Your task to perform on an android device: toggle priority inbox in the gmail app Image 0: 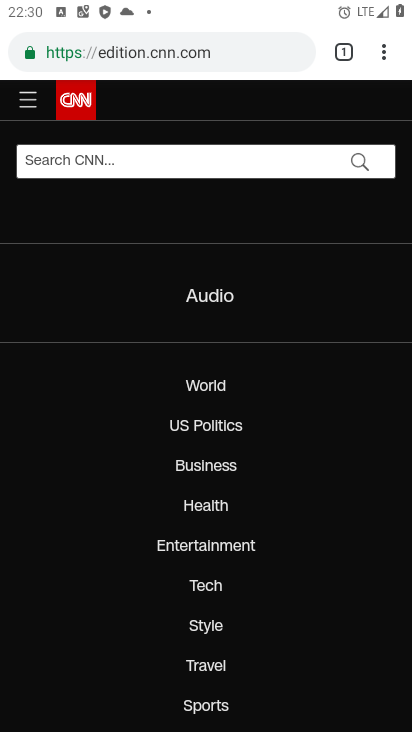
Step 0: press home button
Your task to perform on an android device: toggle priority inbox in the gmail app Image 1: 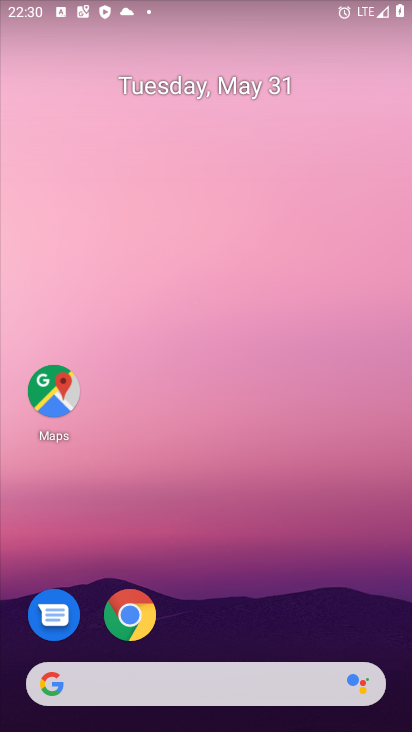
Step 1: drag from (358, 631) to (347, 104)
Your task to perform on an android device: toggle priority inbox in the gmail app Image 2: 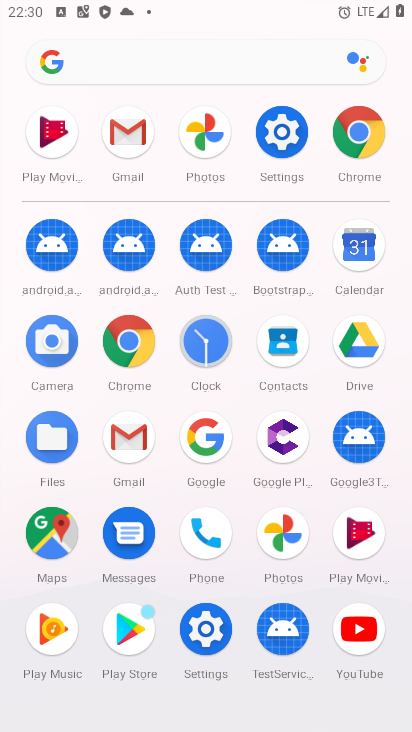
Step 2: click (130, 438)
Your task to perform on an android device: toggle priority inbox in the gmail app Image 3: 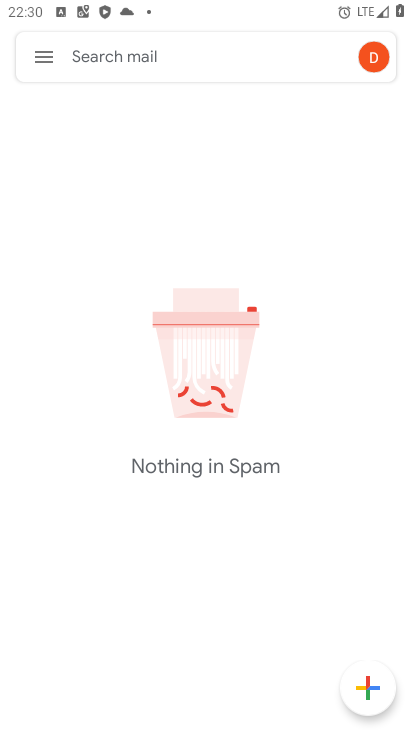
Step 3: click (38, 59)
Your task to perform on an android device: toggle priority inbox in the gmail app Image 4: 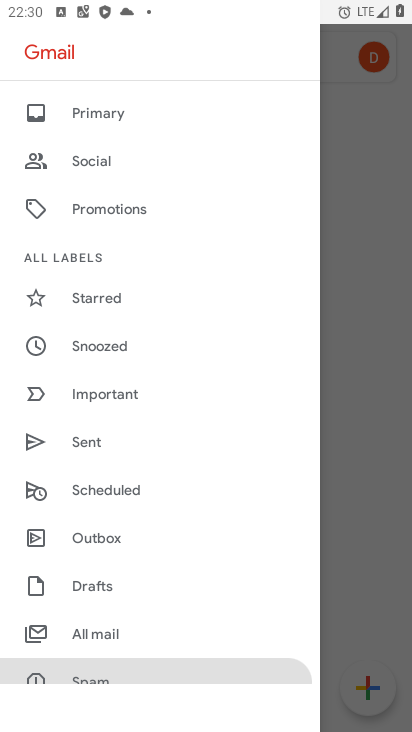
Step 4: drag from (179, 588) to (180, 244)
Your task to perform on an android device: toggle priority inbox in the gmail app Image 5: 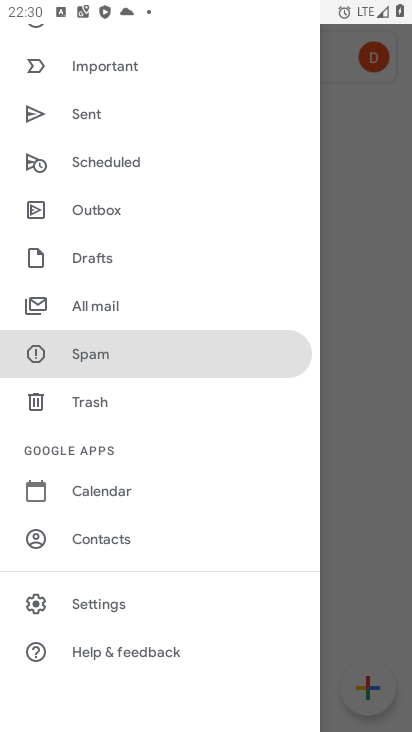
Step 5: click (107, 597)
Your task to perform on an android device: toggle priority inbox in the gmail app Image 6: 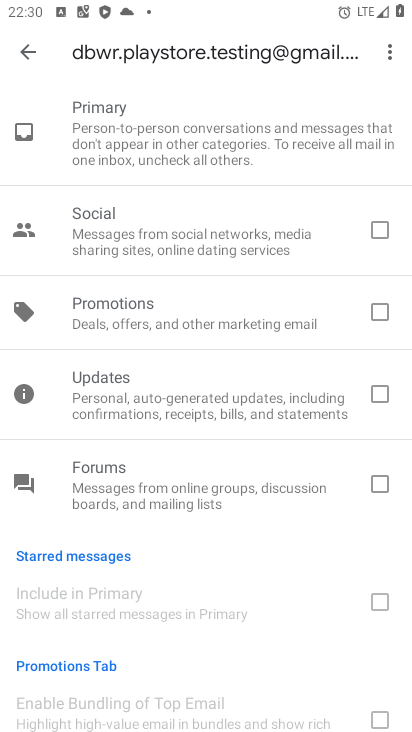
Step 6: press back button
Your task to perform on an android device: toggle priority inbox in the gmail app Image 7: 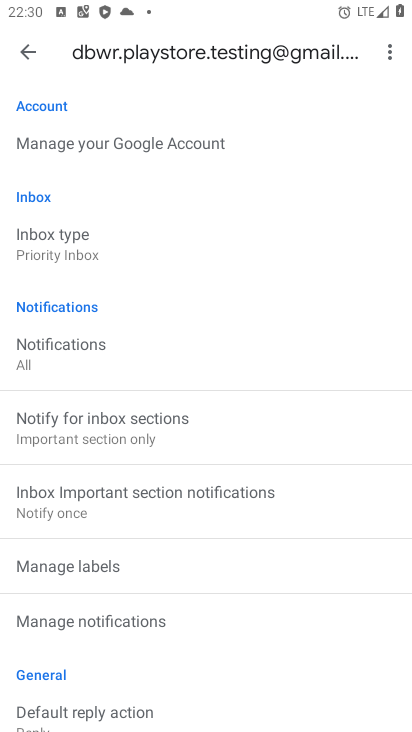
Step 7: click (41, 236)
Your task to perform on an android device: toggle priority inbox in the gmail app Image 8: 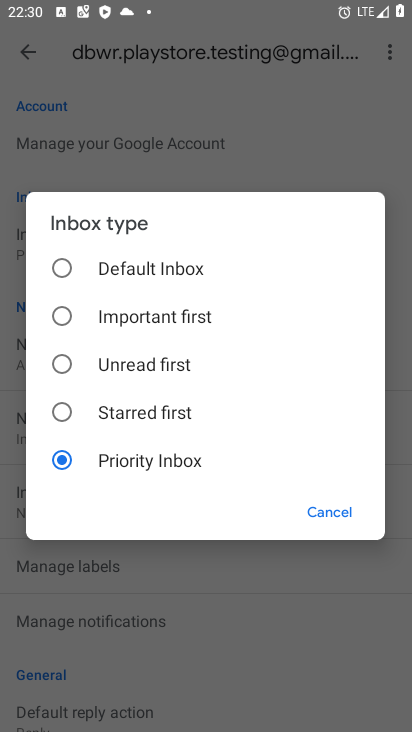
Step 8: click (67, 272)
Your task to perform on an android device: toggle priority inbox in the gmail app Image 9: 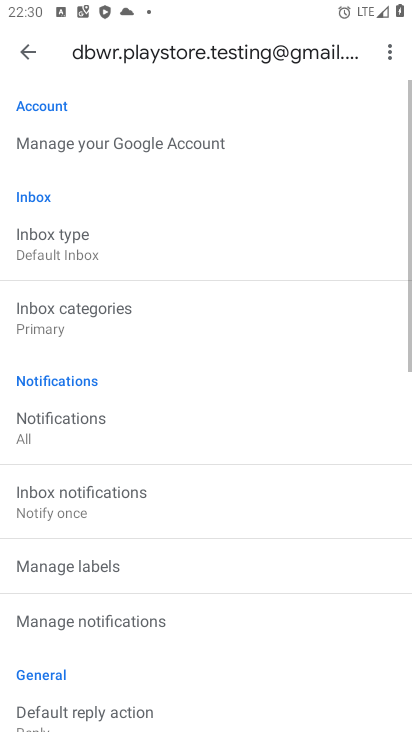
Step 9: task complete